Your task to perform on an android device: Open eBay Image 0: 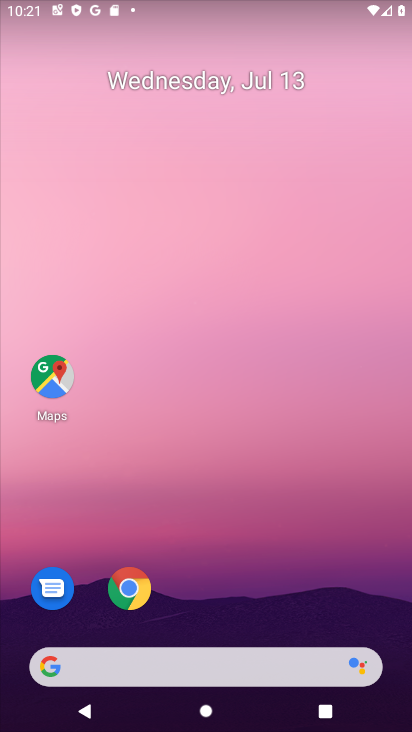
Step 0: drag from (214, 611) to (239, 136)
Your task to perform on an android device: Open eBay Image 1: 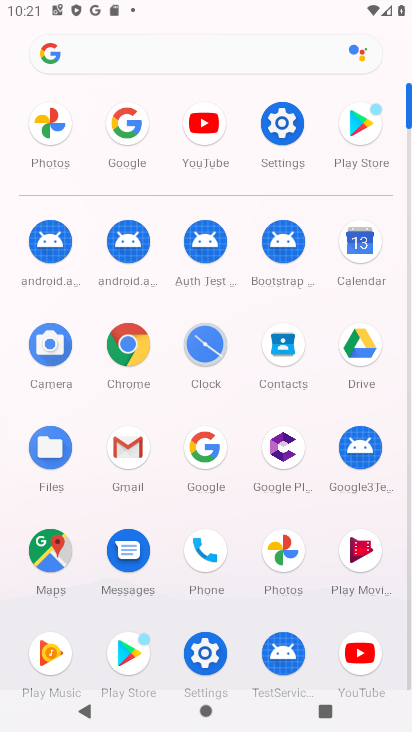
Step 1: click (122, 132)
Your task to perform on an android device: Open eBay Image 2: 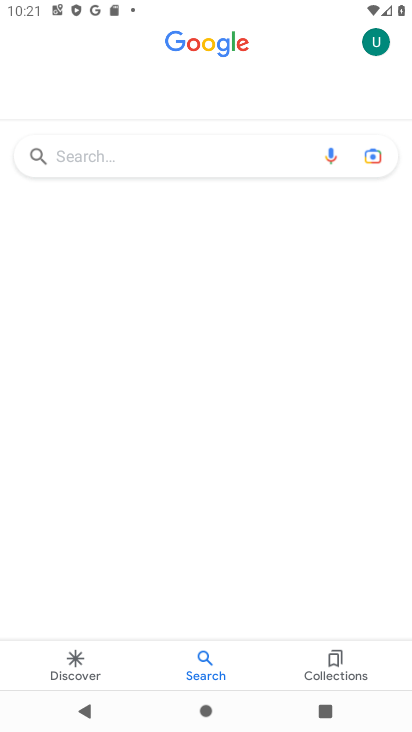
Step 2: click (134, 152)
Your task to perform on an android device: Open eBay Image 3: 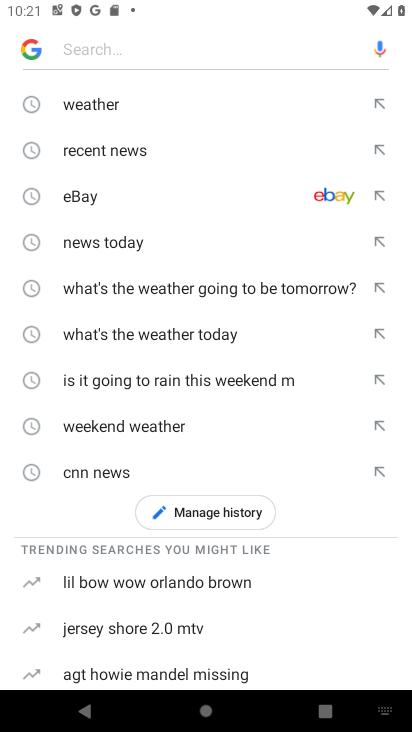
Step 3: click (156, 196)
Your task to perform on an android device: Open eBay Image 4: 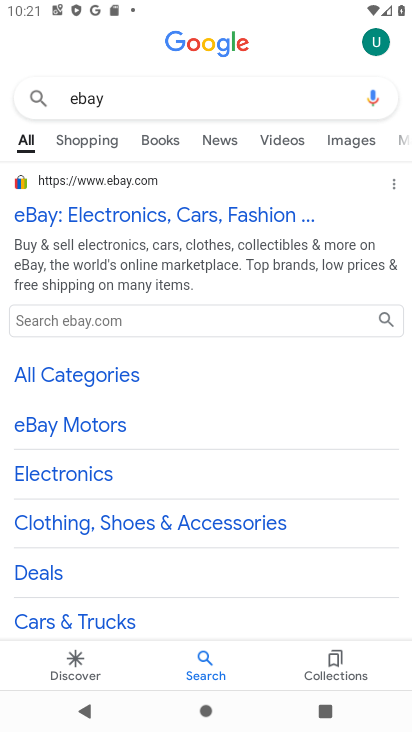
Step 4: click (158, 221)
Your task to perform on an android device: Open eBay Image 5: 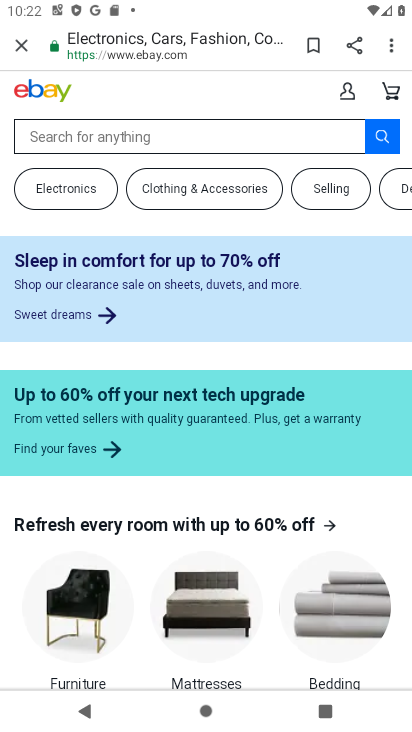
Step 5: task complete